Your task to perform on an android device: Open ESPN.com Image 0: 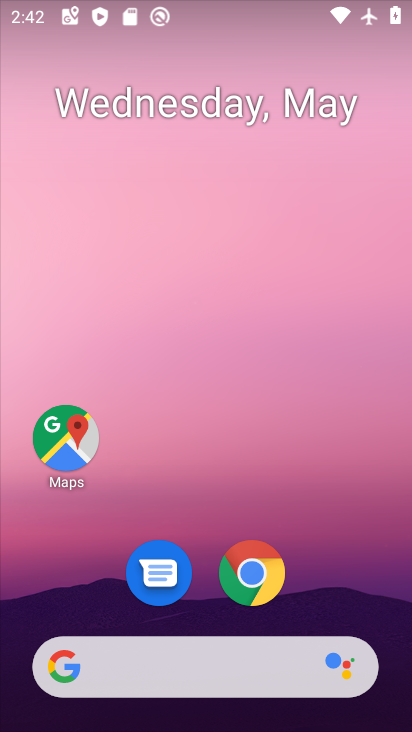
Step 0: click (252, 573)
Your task to perform on an android device: Open ESPN.com Image 1: 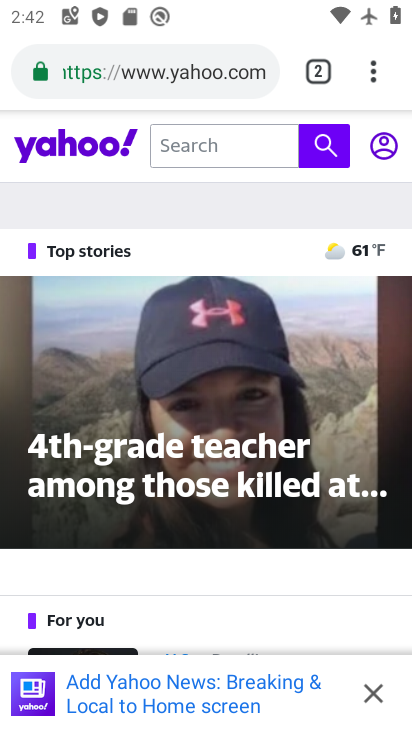
Step 1: click (137, 71)
Your task to perform on an android device: Open ESPN.com Image 2: 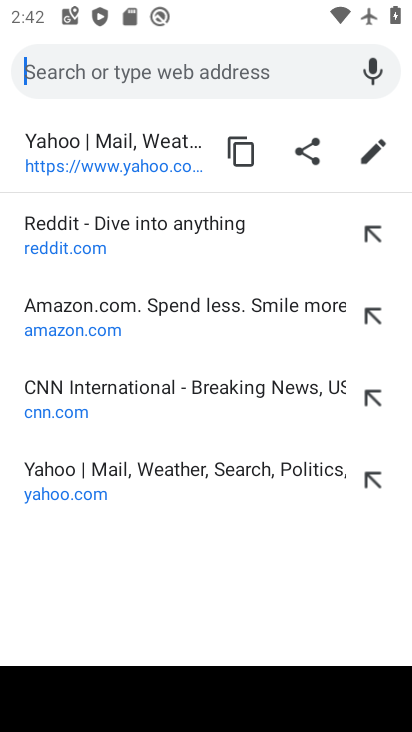
Step 2: type "ESPN.com"
Your task to perform on an android device: Open ESPN.com Image 3: 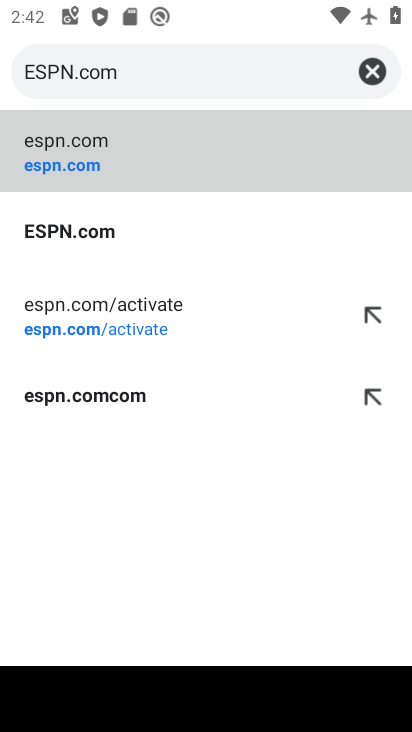
Step 3: click (47, 170)
Your task to perform on an android device: Open ESPN.com Image 4: 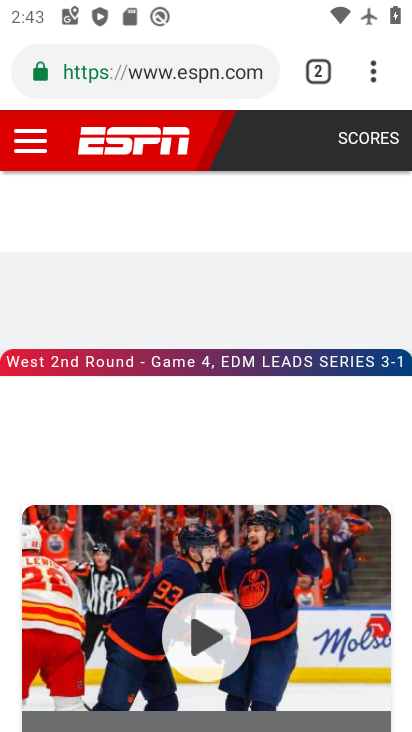
Step 4: task complete